Your task to perform on an android device: Search for macbook on target, select the first entry, add it to the cart, then select checkout. Image 0: 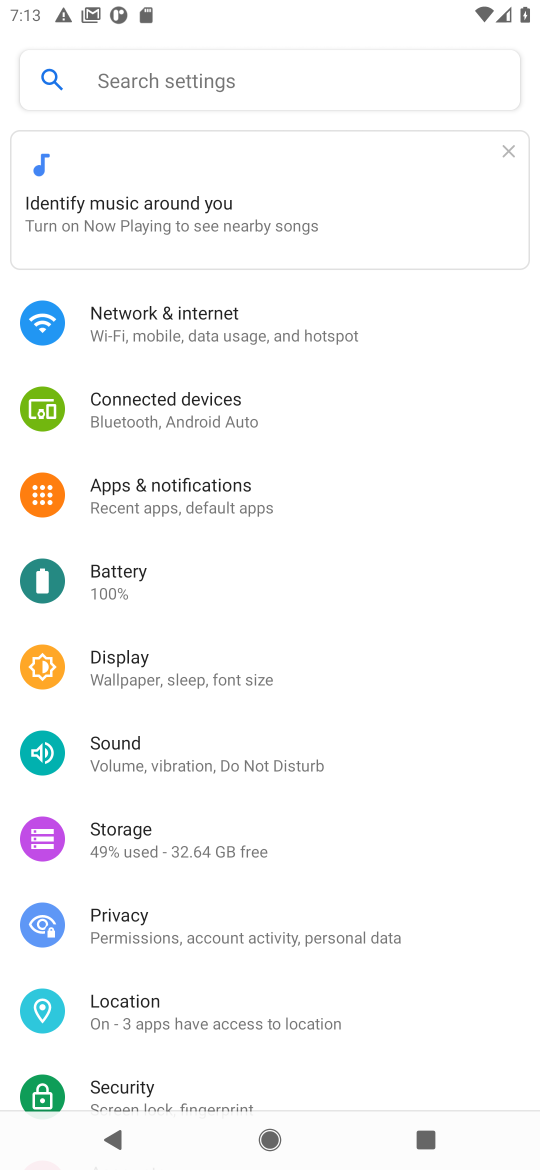
Step 0: press home button
Your task to perform on an android device: Search for macbook on target, select the first entry, add it to the cart, then select checkout. Image 1: 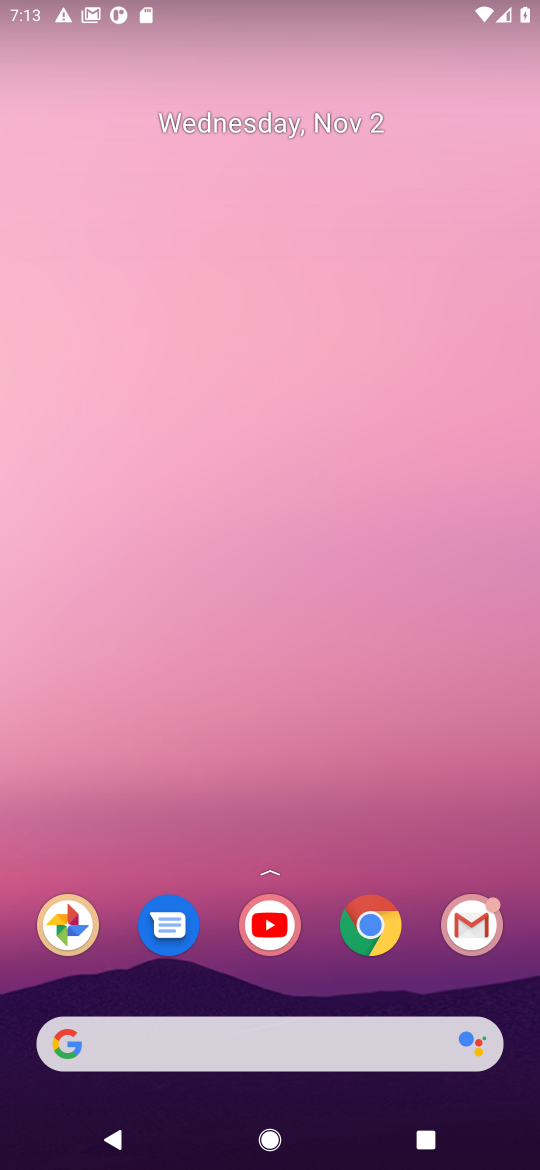
Step 1: click (97, 1039)
Your task to perform on an android device: Search for macbook on target, select the first entry, add it to the cart, then select checkout. Image 2: 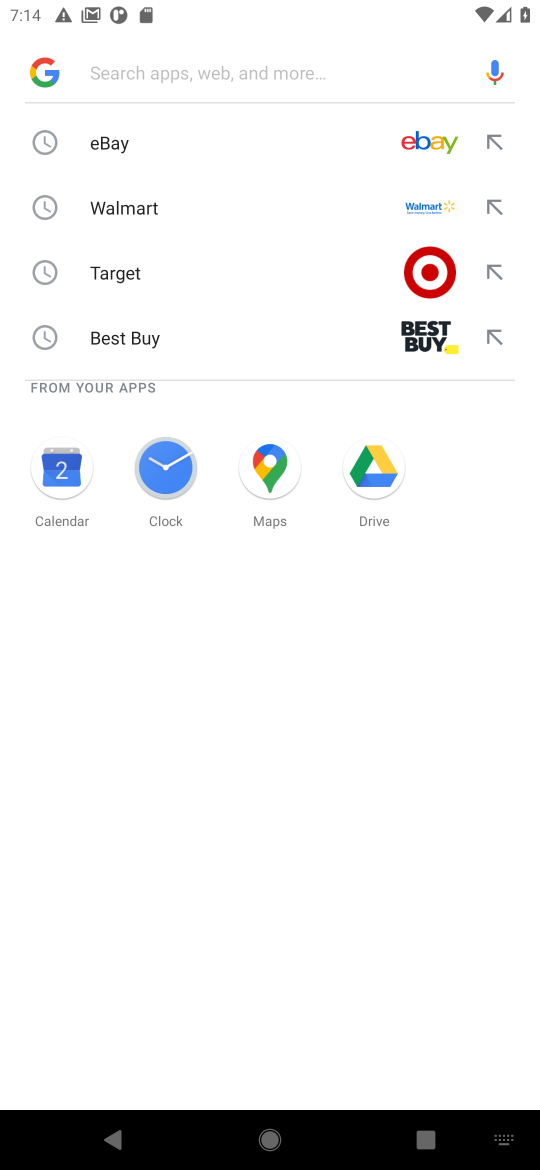
Step 2: type "target"
Your task to perform on an android device: Search for macbook on target, select the first entry, add it to the cart, then select checkout. Image 3: 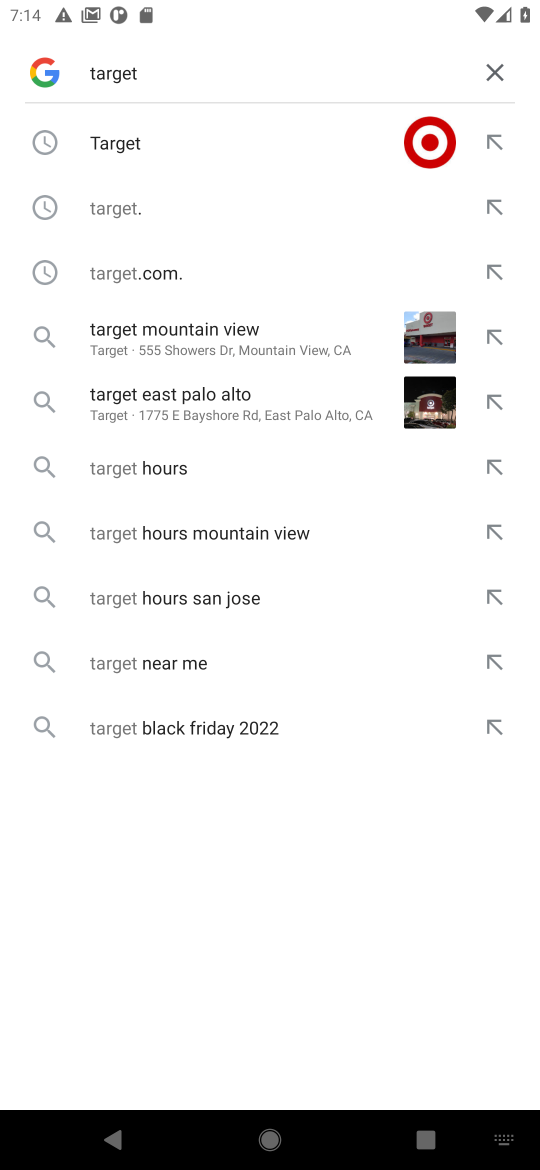
Step 3: press enter
Your task to perform on an android device: Search for macbook on target, select the first entry, add it to the cart, then select checkout. Image 4: 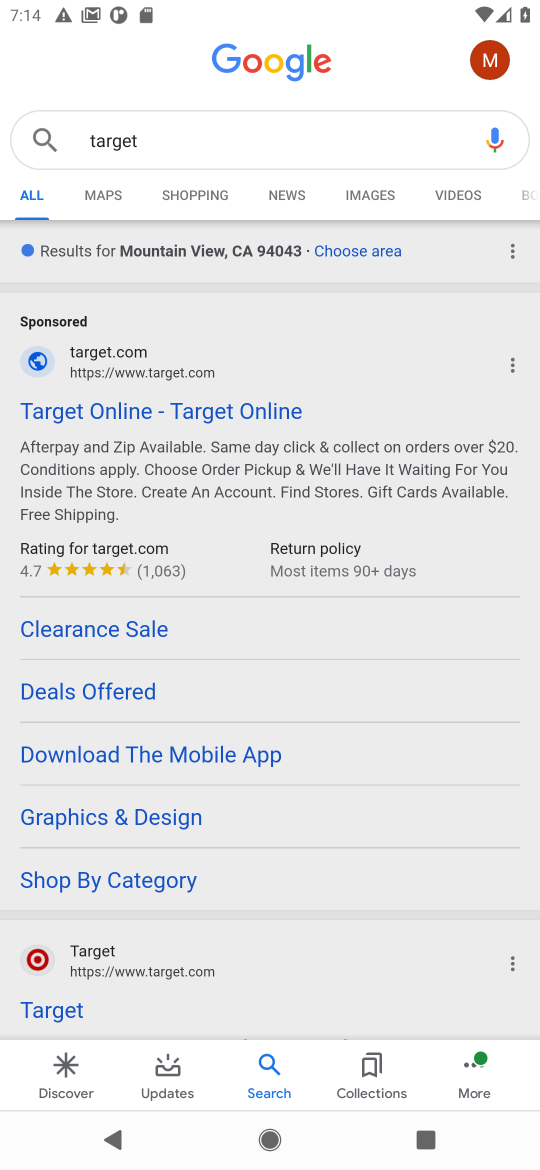
Step 4: click (130, 410)
Your task to perform on an android device: Search for macbook on target, select the first entry, add it to the cart, then select checkout. Image 5: 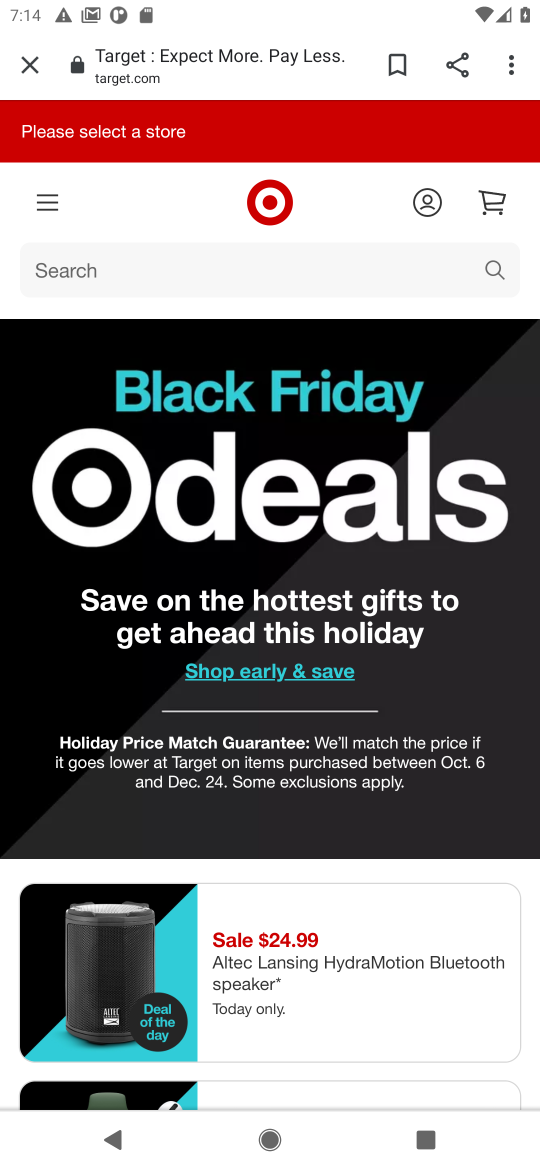
Step 5: click (79, 268)
Your task to perform on an android device: Search for macbook on target, select the first entry, add it to the cart, then select checkout. Image 6: 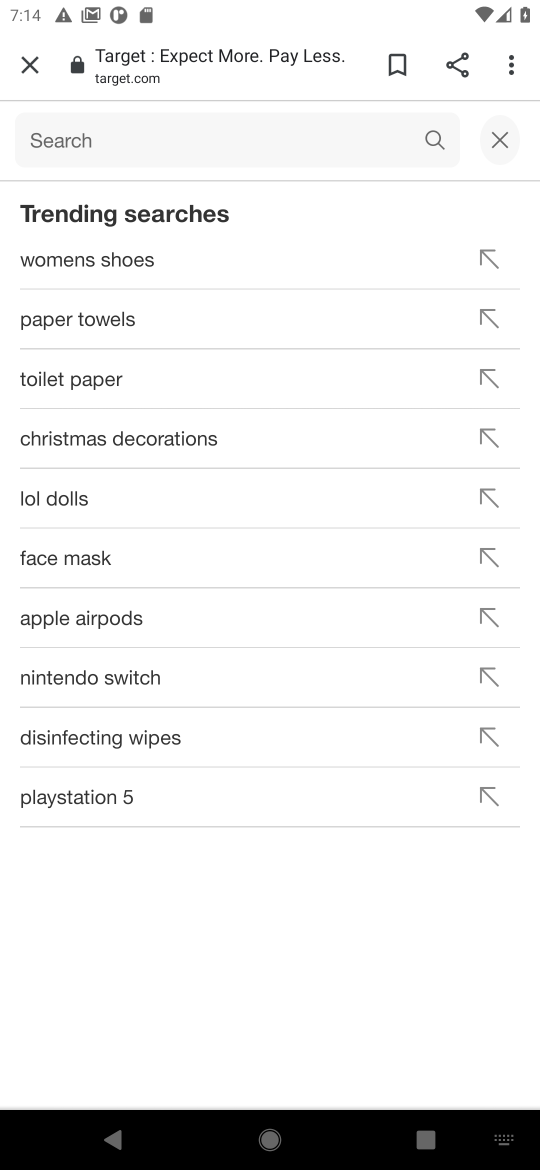
Step 6: type "macbook"
Your task to perform on an android device: Search for macbook on target, select the first entry, add it to the cart, then select checkout. Image 7: 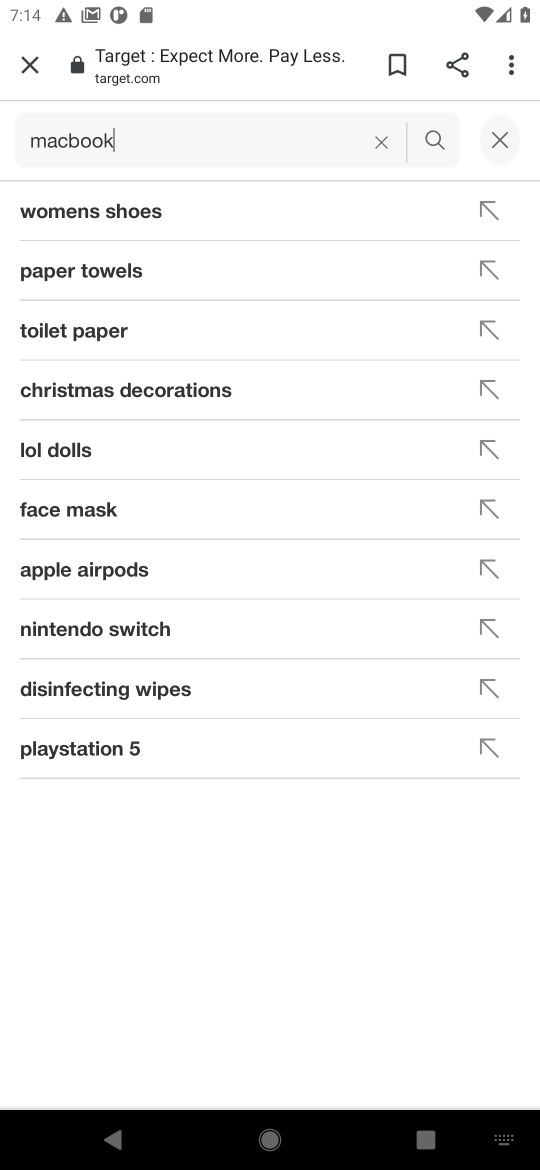
Step 7: press enter
Your task to perform on an android device: Search for macbook on target, select the first entry, add it to the cart, then select checkout. Image 8: 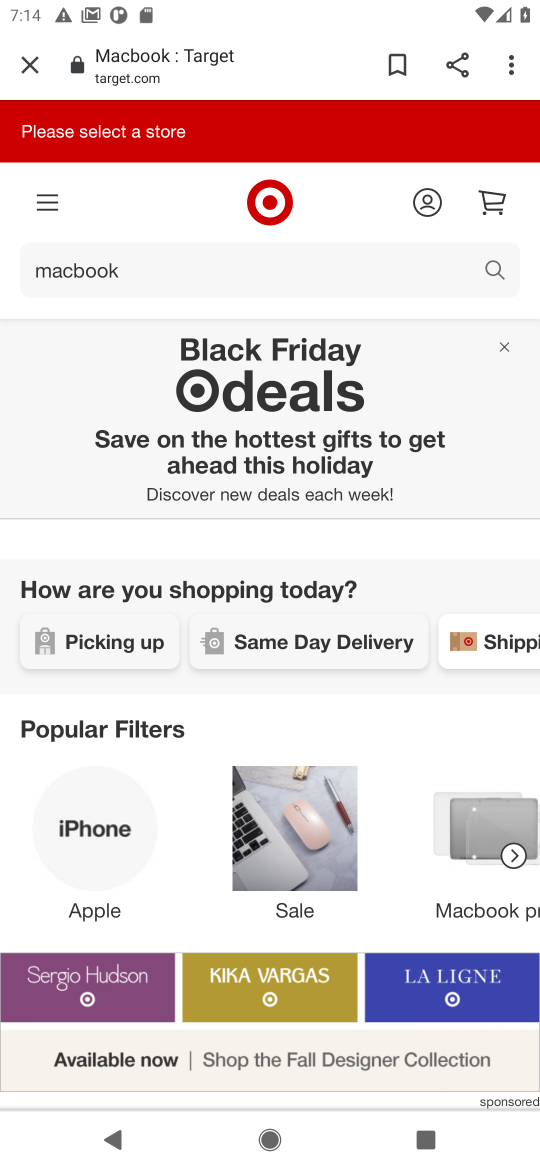
Step 8: drag from (420, 889) to (446, 468)
Your task to perform on an android device: Search for macbook on target, select the first entry, add it to the cart, then select checkout. Image 9: 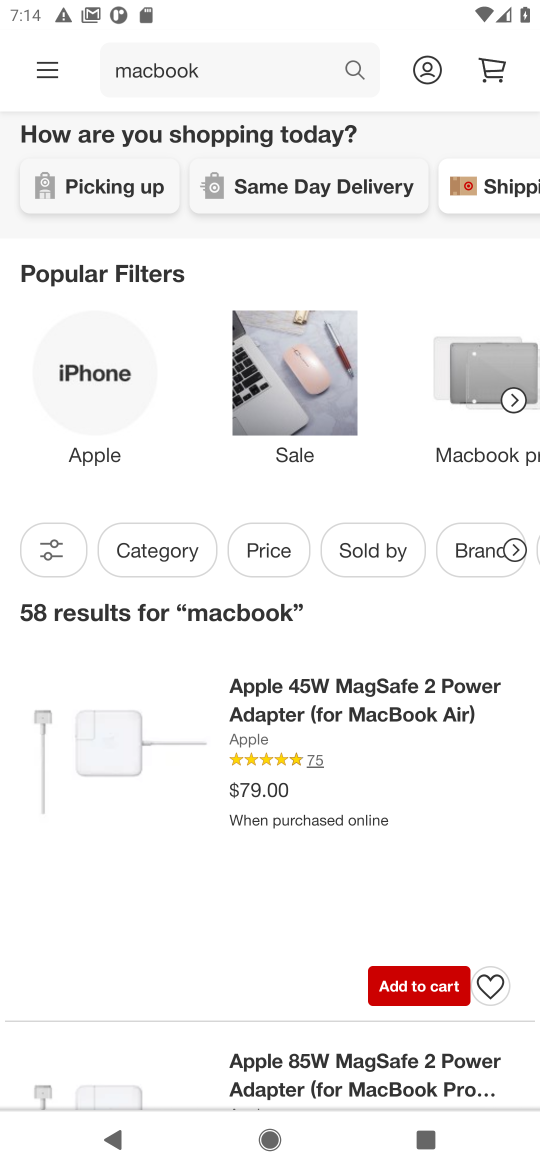
Step 9: drag from (285, 913) to (363, 440)
Your task to perform on an android device: Search for macbook on target, select the first entry, add it to the cart, then select checkout. Image 10: 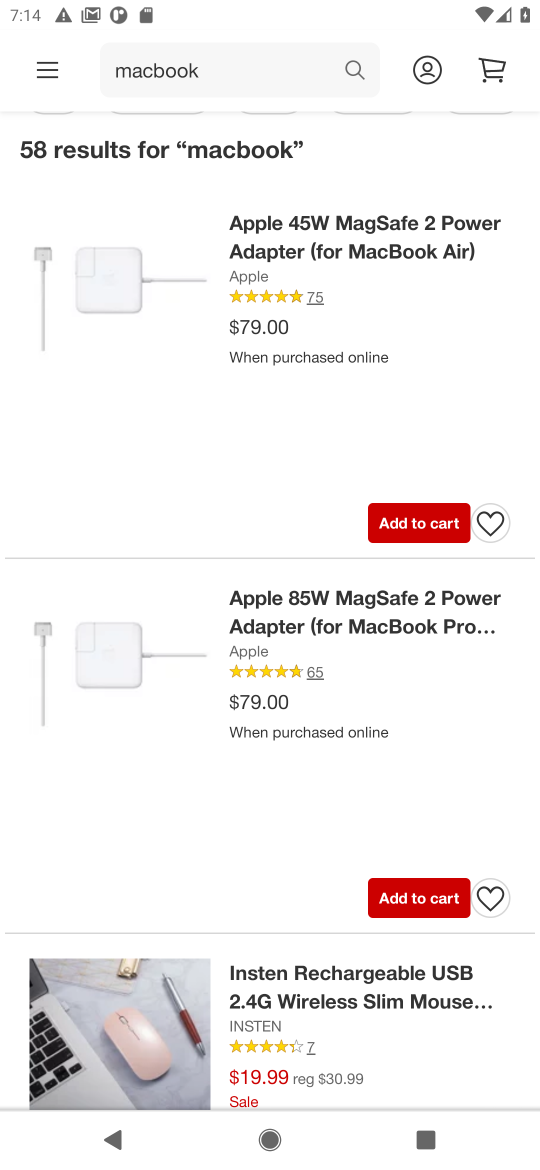
Step 10: drag from (317, 1027) to (364, 433)
Your task to perform on an android device: Search for macbook on target, select the first entry, add it to the cart, then select checkout. Image 11: 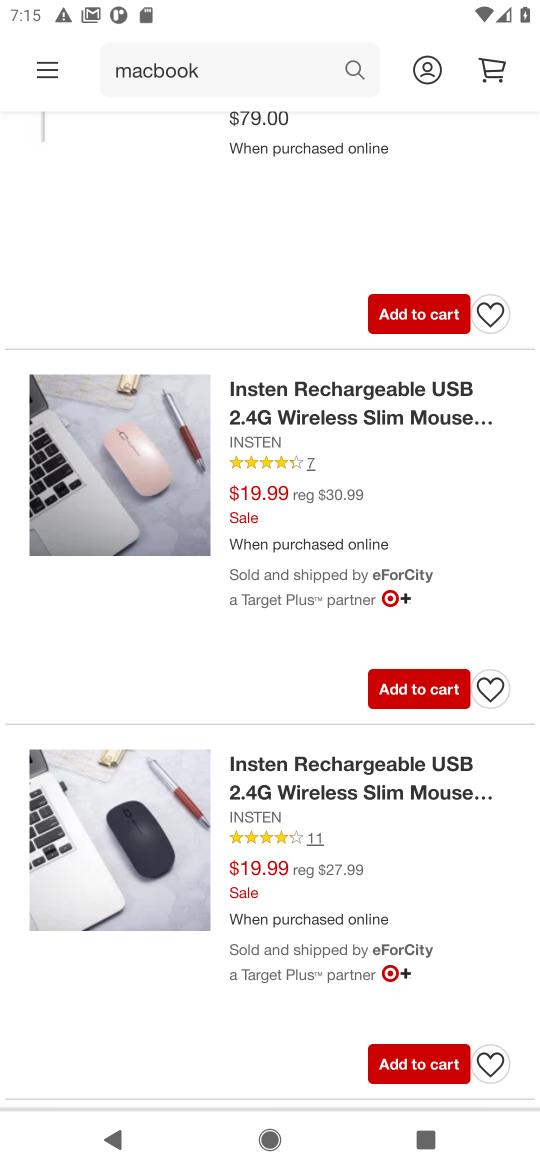
Step 11: drag from (319, 920) to (288, 368)
Your task to perform on an android device: Search for macbook on target, select the first entry, add it to the cart, then select checkout. Image 12: 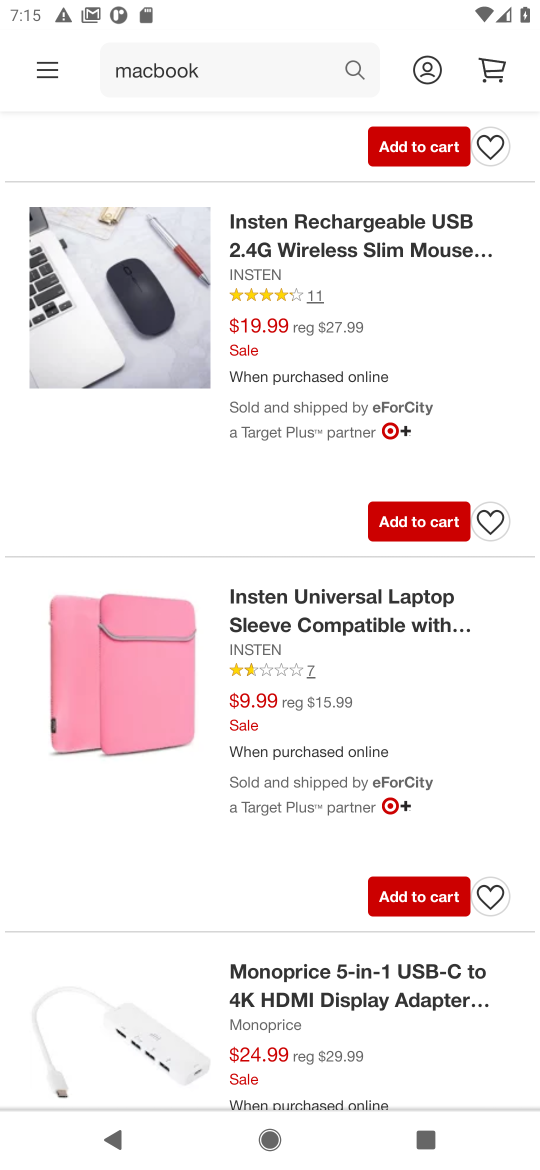
Step 12: drag from (298, 979) to (284, 479)
Your task to perform on an android device: Search for macbook on target, select the first entry, add it to the cart, then select checkout. Image 13: 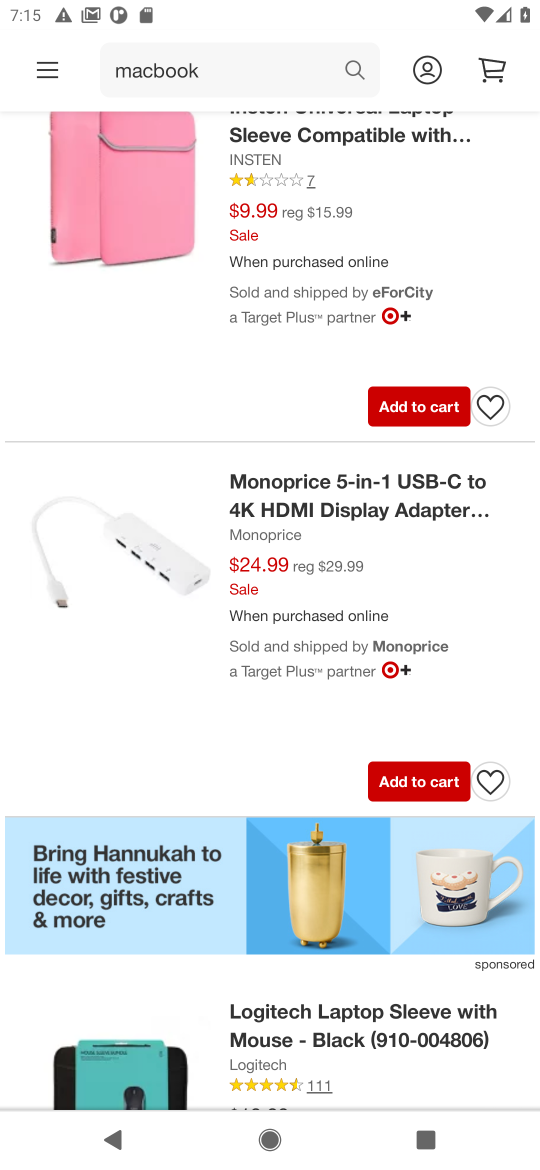
Step 13: drag from (329, 944) to (328, 352)
Your task to perform on an android device: Search for macbook on target, select the first entry, add it to the cart, then select checkout. Image 14: 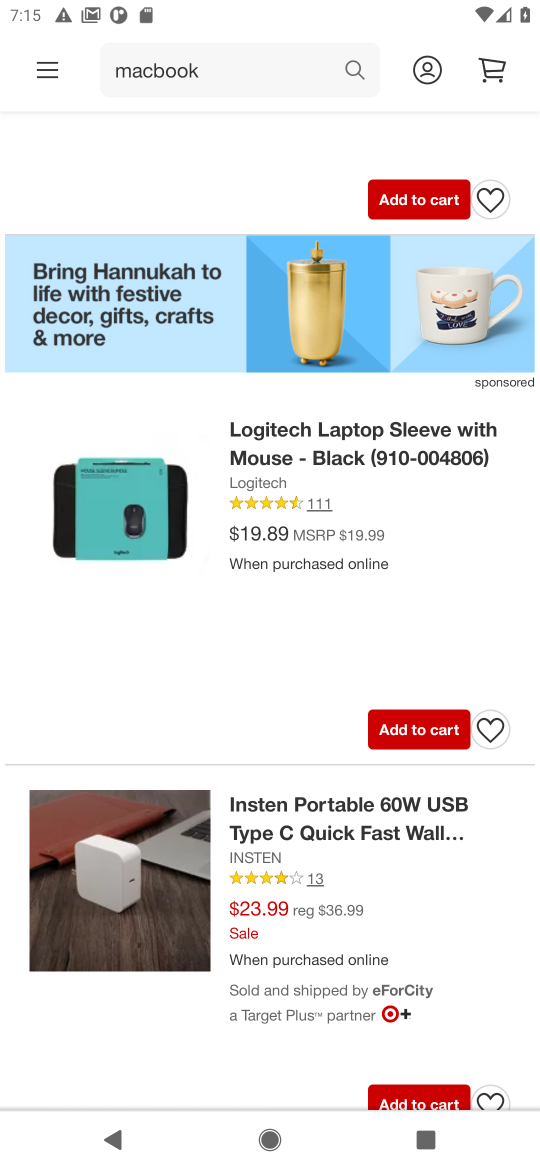
Step 14: click (355, 68)
Your task to perform on an android device: Search for macbook on target, select the first entry, add it to the cart, then select checkout. Image 15: 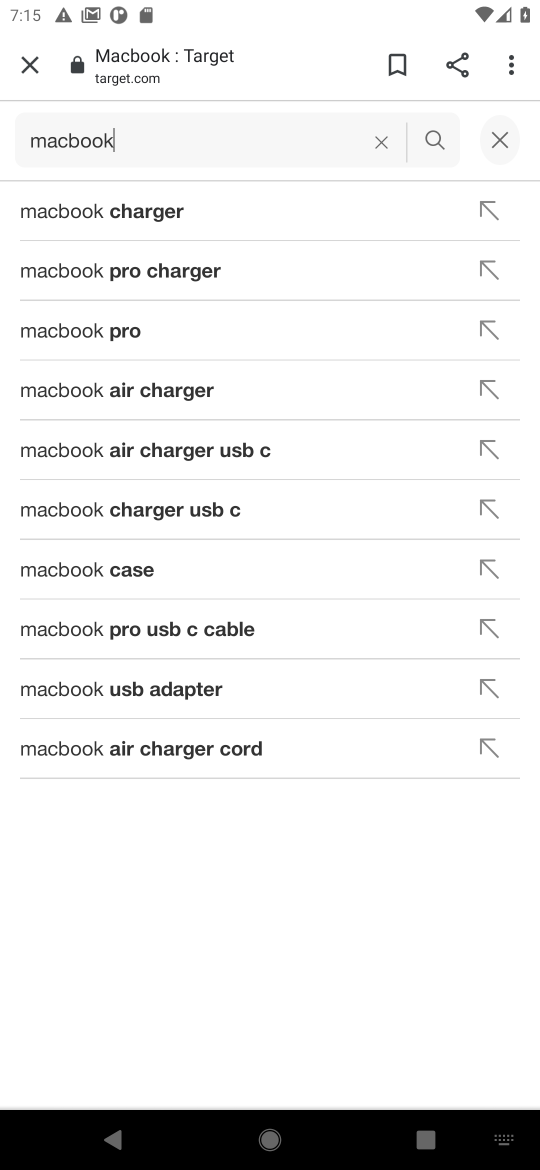
Step 15: click (433, 144)
Your task to perform on an android device: Search for macbook on target, select the first entry, add it to the cart, then select checkout. Image 16: 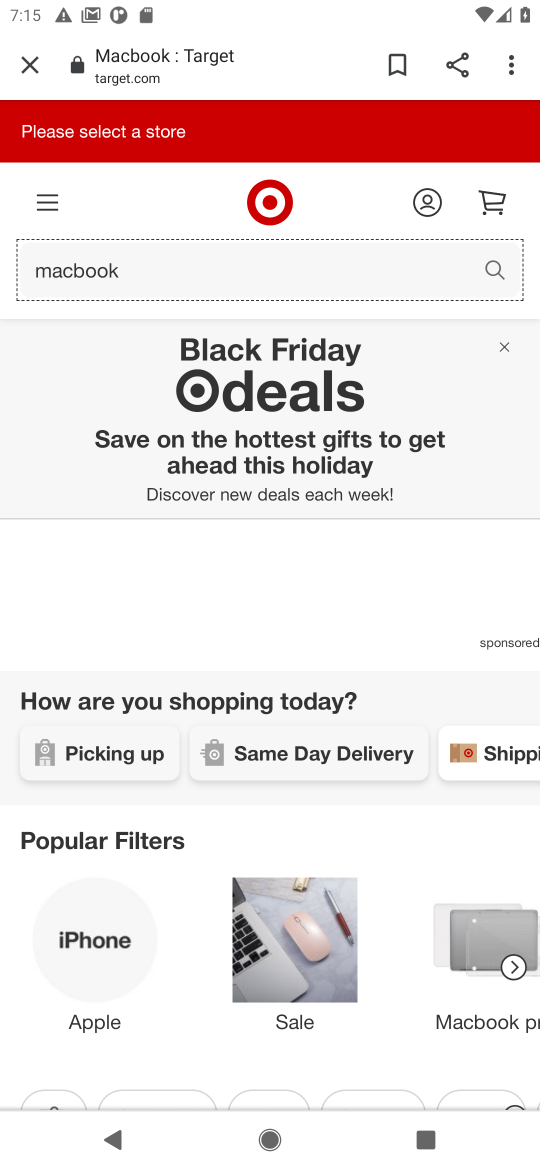
Step 16: drag from (449, 950) to (73, 890)
Your task to perform on an android device: Search for macbook on target, select the first entry, add it to the cart, then select checkout. Image 17: 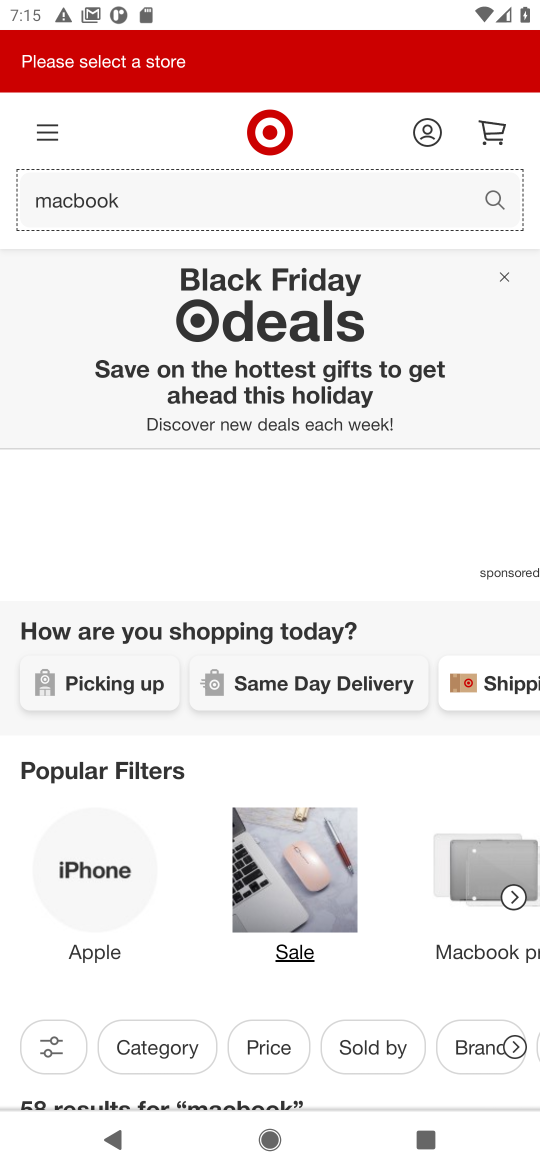
Step 17: drag from (424, 943) to (98, 880)
Your task to perform on an android device: Search for macbook on target, select the first entry, add it to the cart, then select checkout. Image 18: 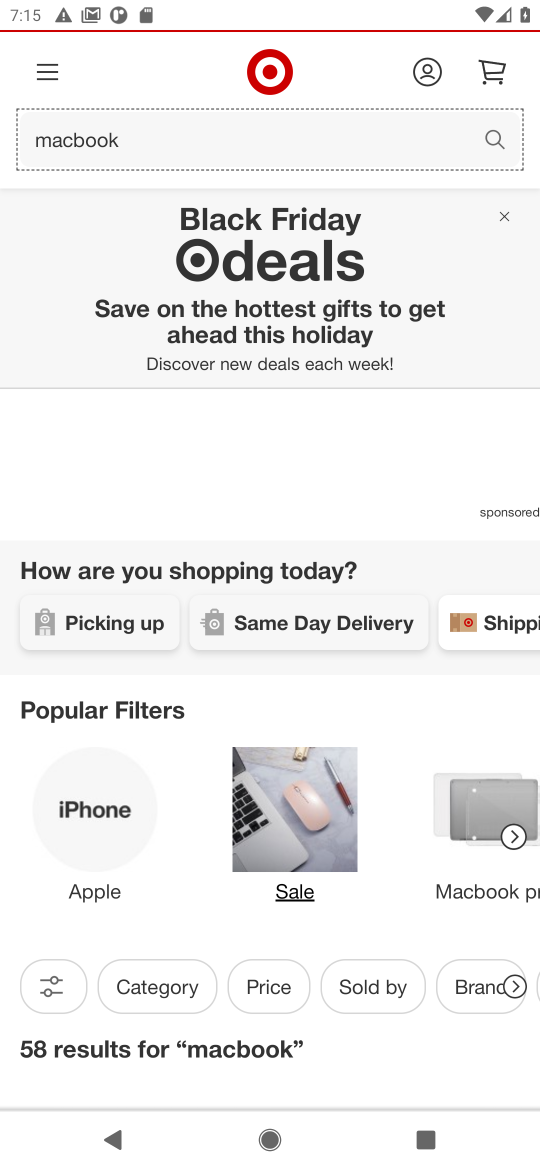
Step 18: click (520, 833)
Your task to perform on an android device: Search for macbook on target, select the first entry, add it to the cart, then select checkout. Image 19: 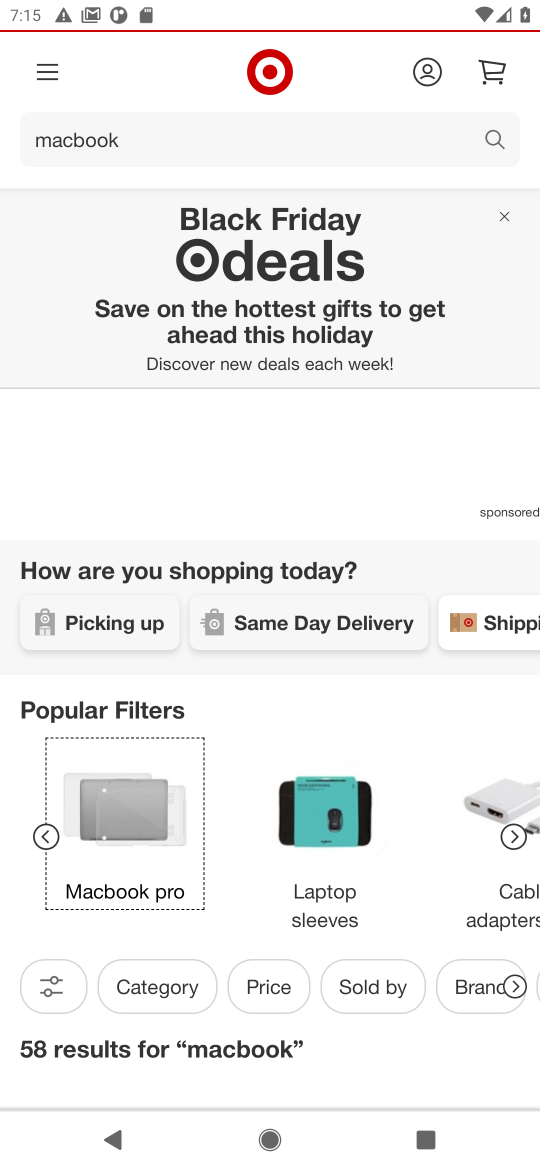
Step 19: drag from (222, 998) to (312, 500)
Your task to perform on an android device: Search for macbook on target, select the first entry, add it to the cart, then select checkout. Image 20: 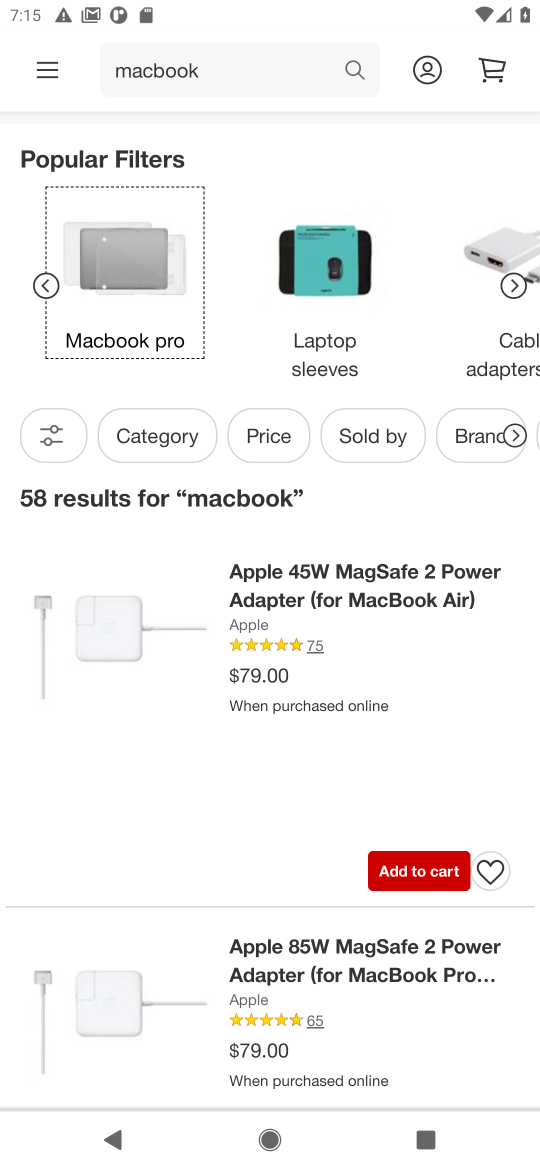
Step 20: click (135, 293)
Your task to perform on an android device: Search for macbook on target, select the first entry, add it to the cart, then select checkout. Image 21: 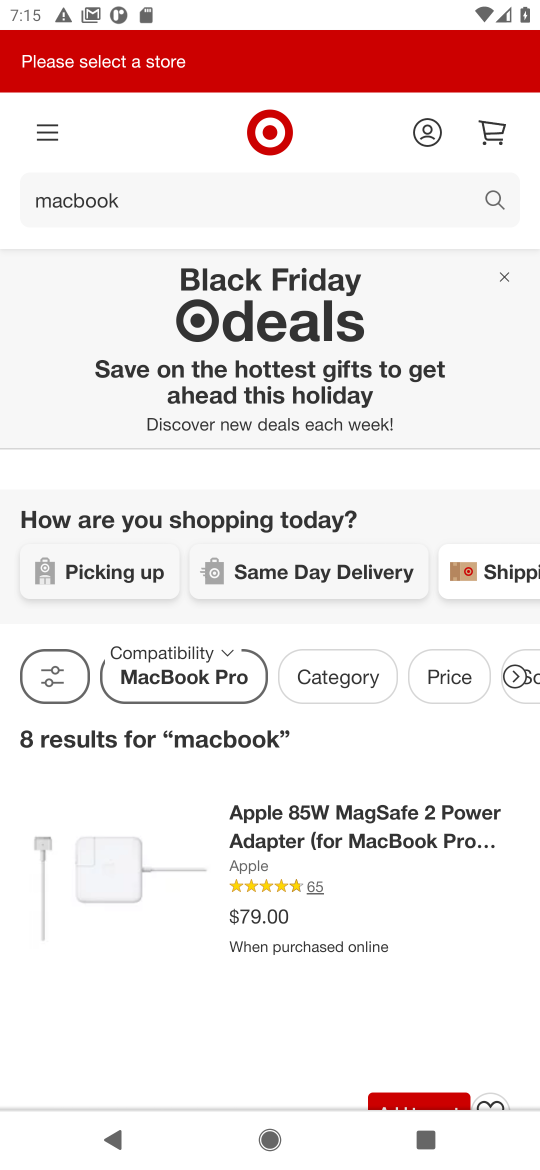
Step 21: task complete